Your task to perform on an android device: check google app version Image 0: 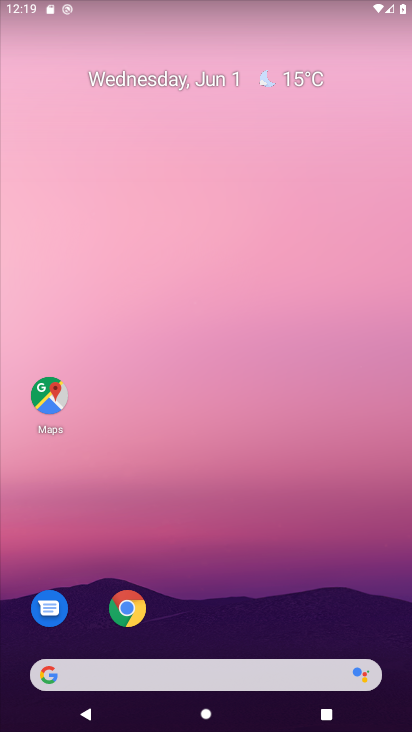
Step 0: click (152, 685)
Your task to perform on an android device: check google app version Image 1: 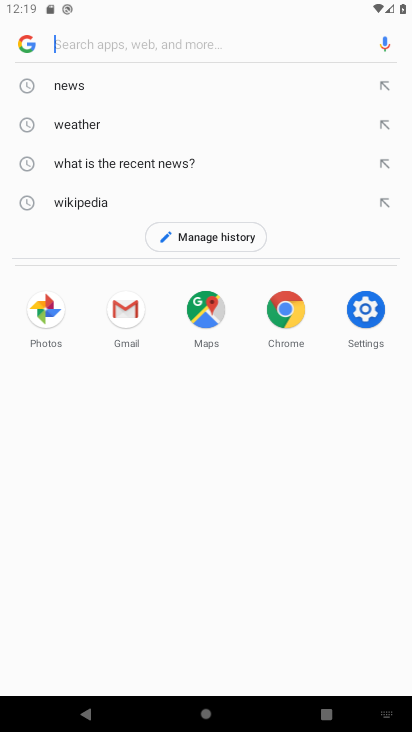
Step 1: click (32, 41)
Your task to perform on an android device: check google app version Image 2: 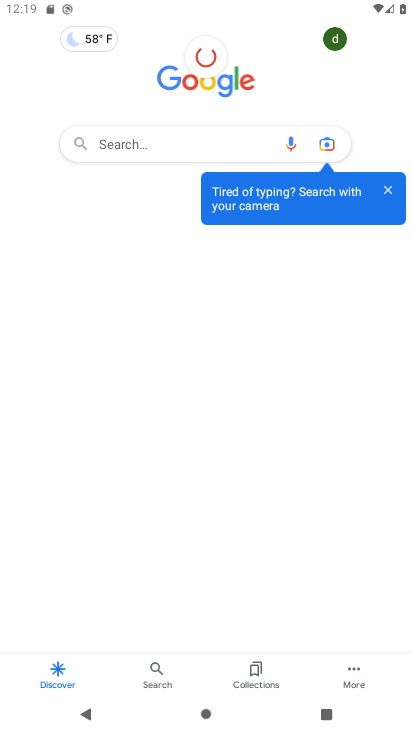
Step 2: click (352, 665)
Your task to perform on an android device: check google app version Image 3: 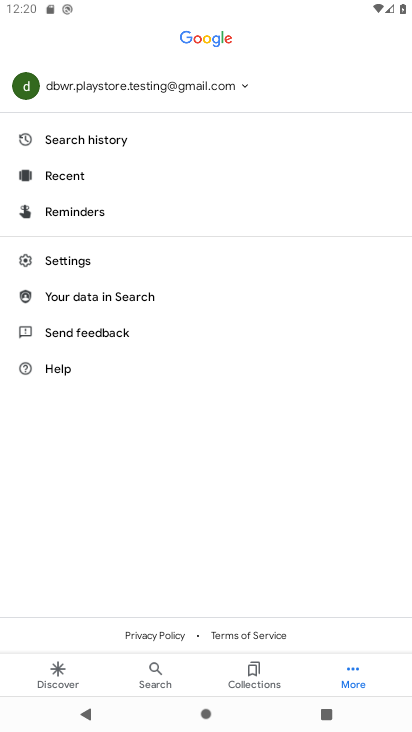
Step 3: click (84, 263)
Your task to perform on an android device: check google app version Image 4: 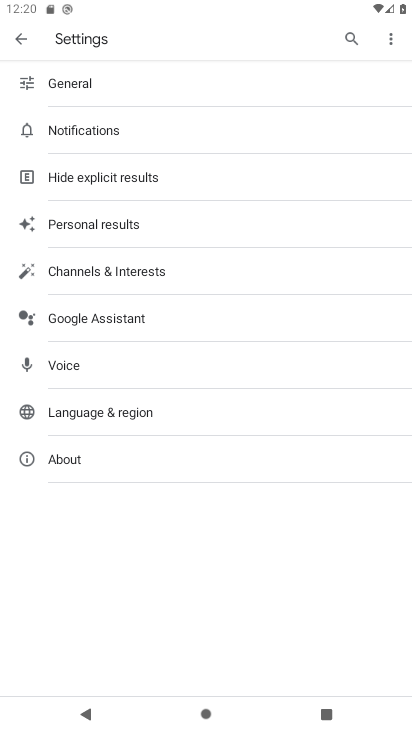
Step 4: click (63, 461)
Your task to perform on an android device: check google app version Image 5: 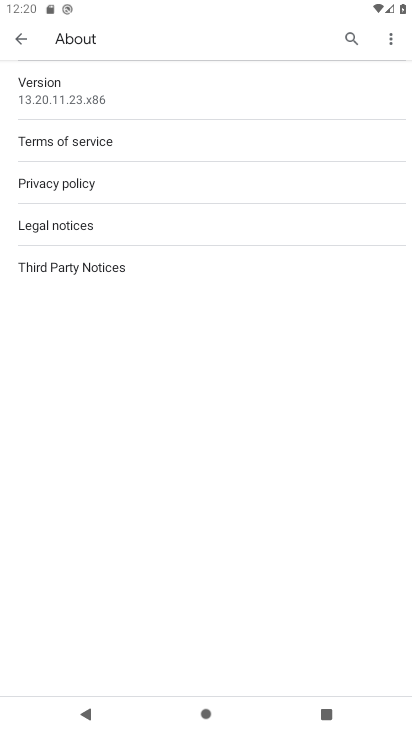
Step 5: task complete